Your task to perform on an android device: Open Google Chrome Image 0: 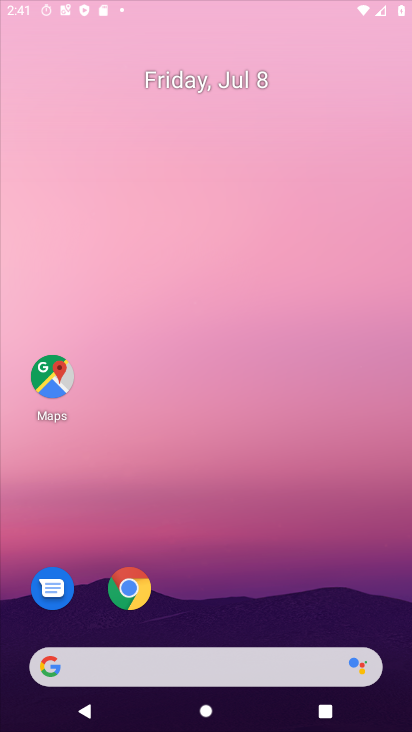
Step 0: press home button
Your task to perform on an android device: Open Google Chrome Image 1: 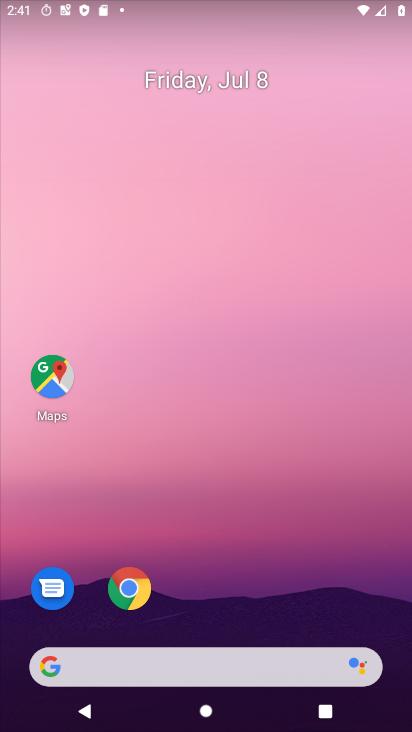
Step 1: drag from (291, 623) to (353, 124)
Your task to perform on an android device: Open Google Chrome Image 2: 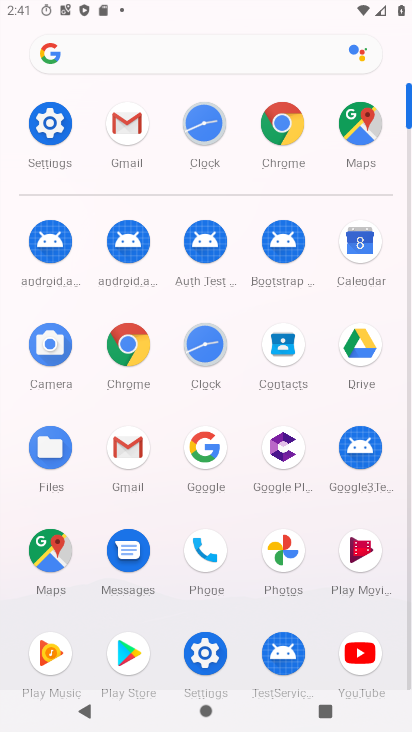
Step 2: click (282, 132)
Your task to perform on an android device: Open Google Chrome Image 3: 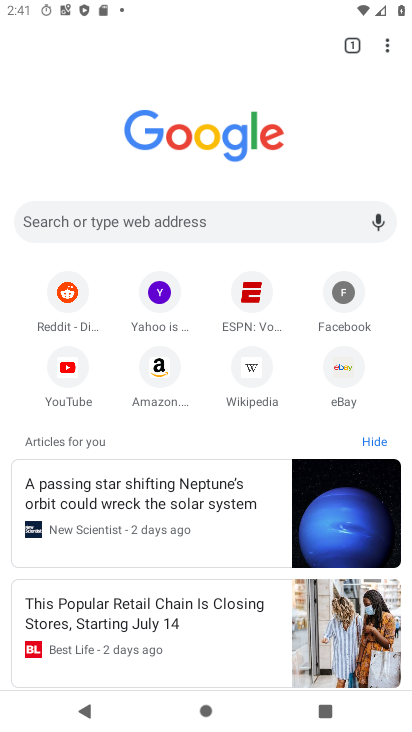
Step 3: task complete